Your task to perform on an android device: Do I have any events tomorrow? Image 0: 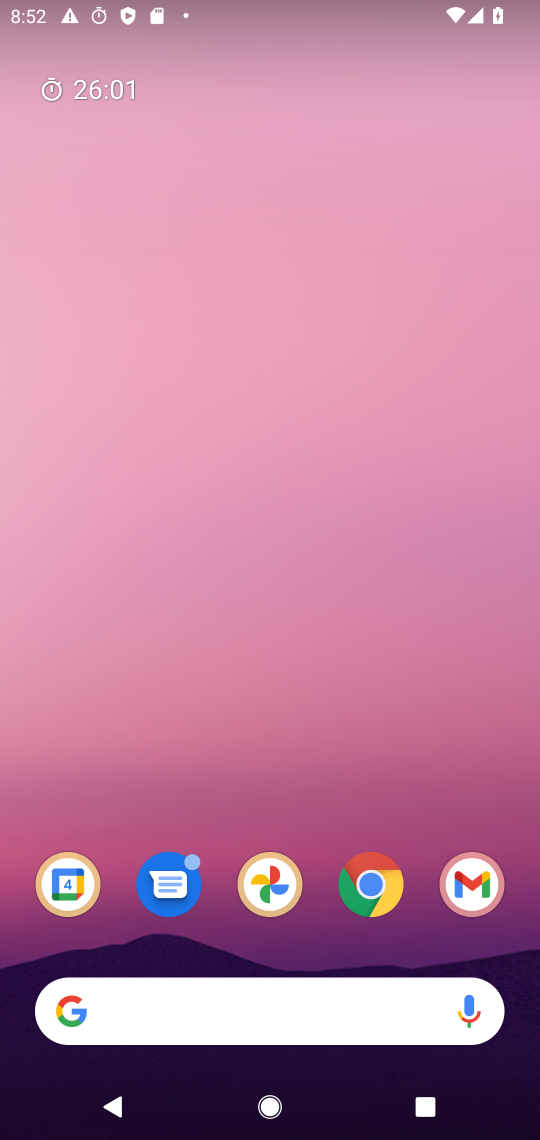
Step 0: click (68, 882)
Your task to perform on an android device: Do I have any events tomorrow? Image 1: 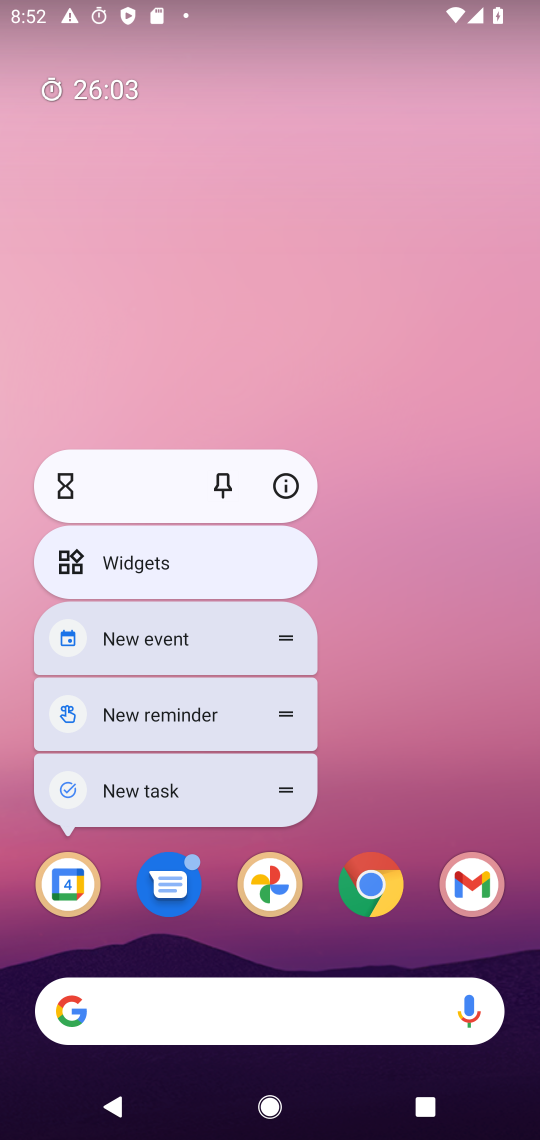
Step 1: click (76, 872)
Your task to perform on an android device: Do I have any events tomorrow? Image 2: 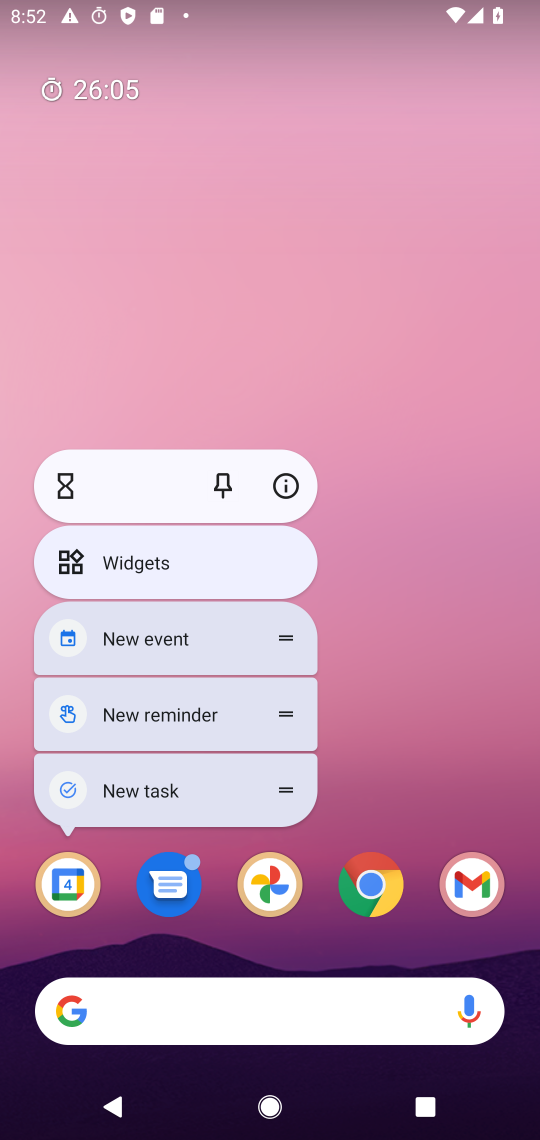
Step 2: click (76, 872)
Your task to perform on an android device: Do I have any events tomorrow? Image 3: 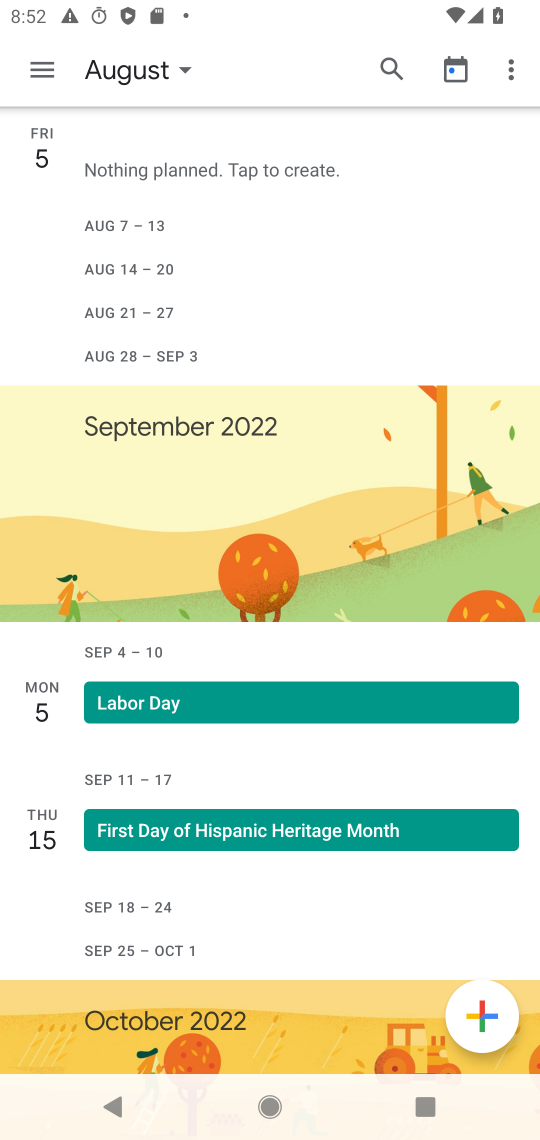
Step 3: click (191, 58)
Your task to perform on an android device: Do I have any events tomorrow? Image 4: 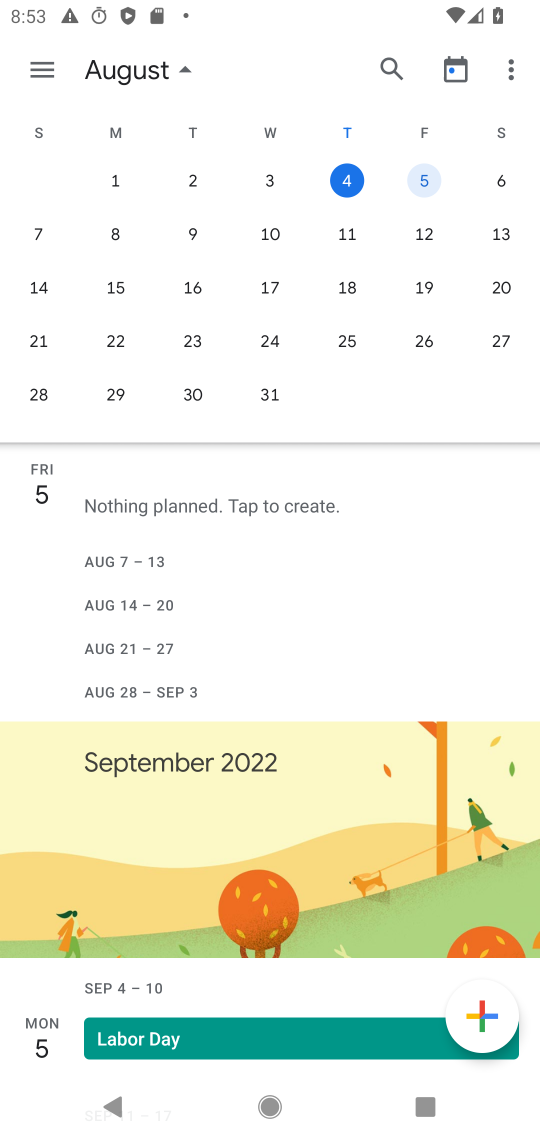
Step 4: click (437, 186)
Your task to perform on an android device: Do I have any events tomorrow? Image 5: 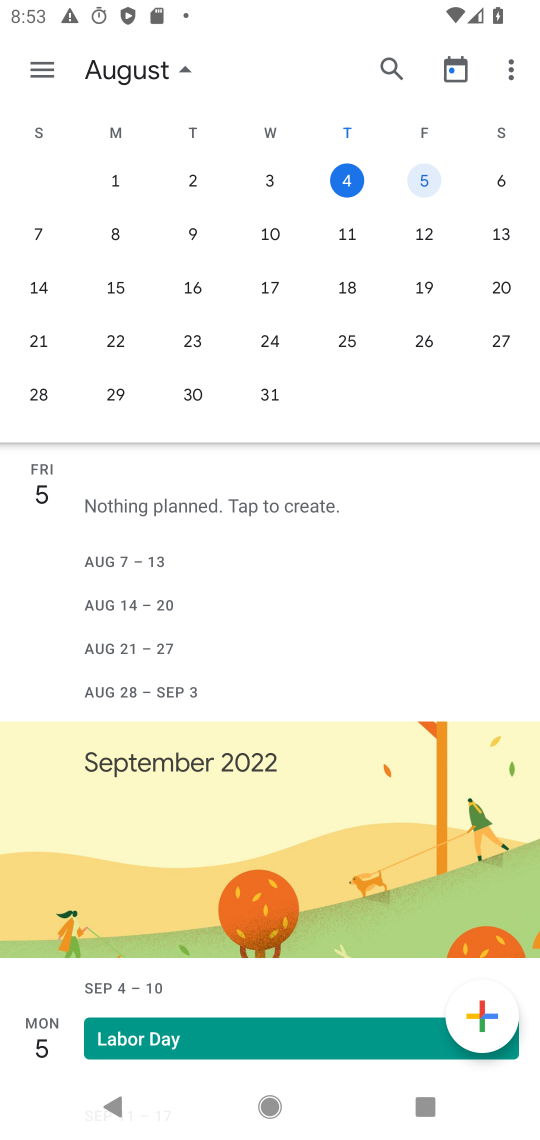
Step 5: task complete